Your task to perform on an android device: turn on improve location accuracy Image 0: 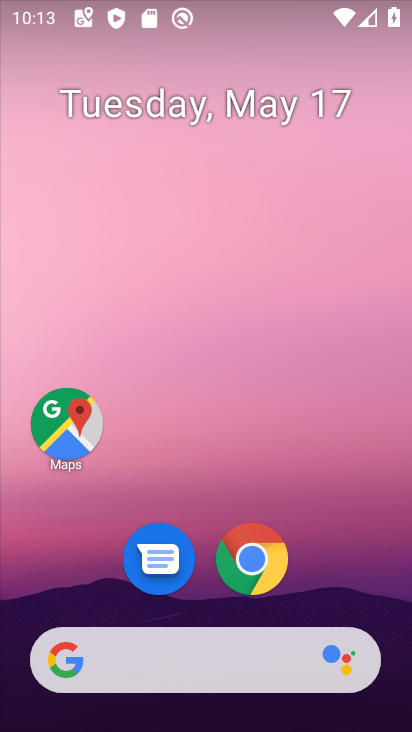
Step 0: drag from (183, 708) to (190, 102)
Your task to perform on an android device: turn on improve location accuracy Image 1: 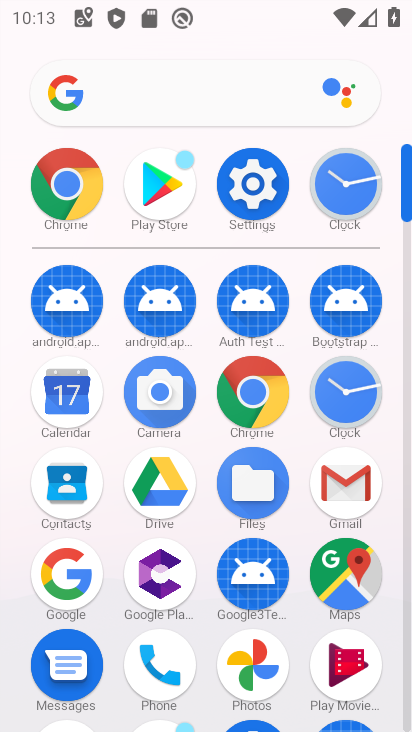
Step 1: click (262, 187)
Your task to perform on an android device: turn on improve location accuracy Image 2: 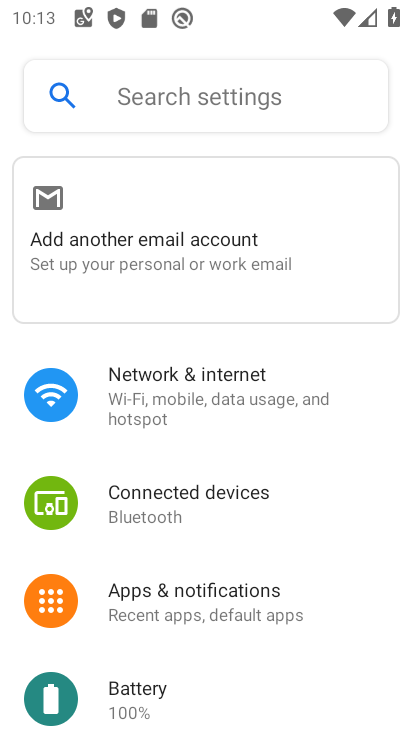
Step 2: drag from (282, 694) to (262, 114)
Your task to perform on an android device: turn on improve location accuracy Image 3: 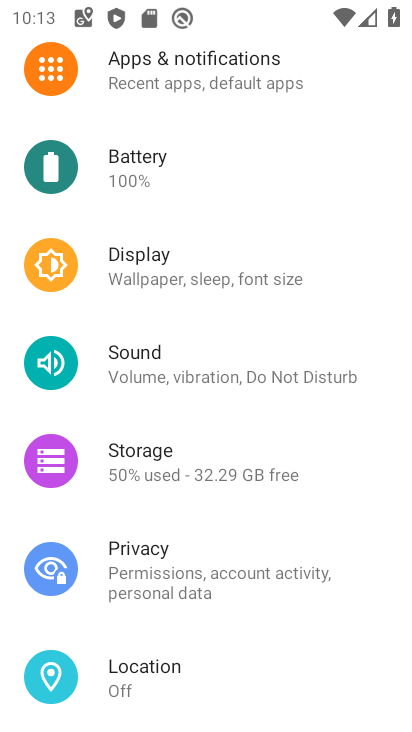
Step 3: click (199, 676)
Your task to perform on an android device: turn on improve location accuracy Image 4: 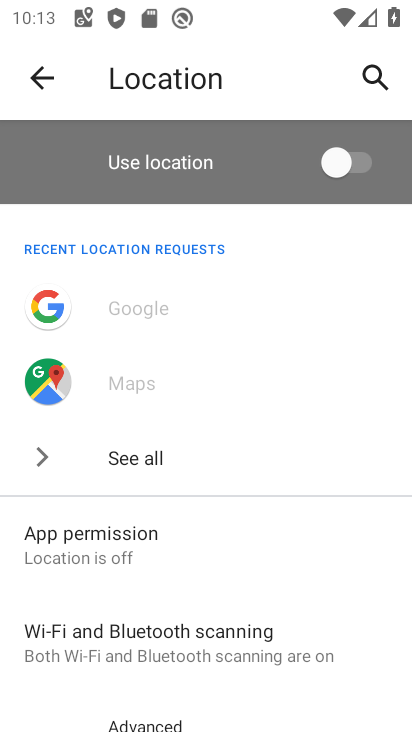
Step 4: click (221, 726)
Your task to perform on an android device: turn on improve location accuracy Image 5: 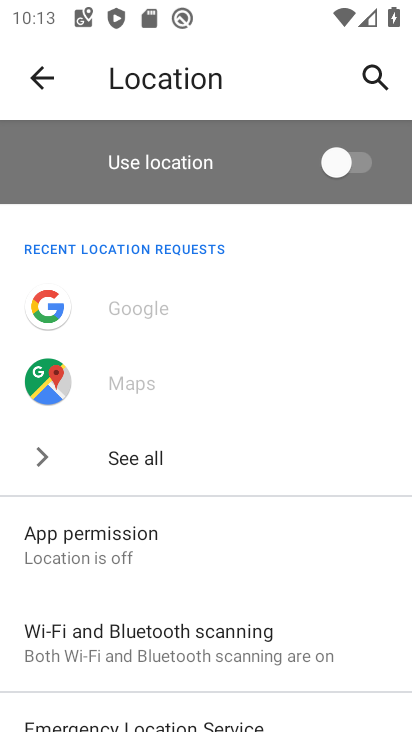
Step 5: drag from (307, 664) to (278, 98)
Your task to perform on an android device: turn on improve location accuracy Image 6: 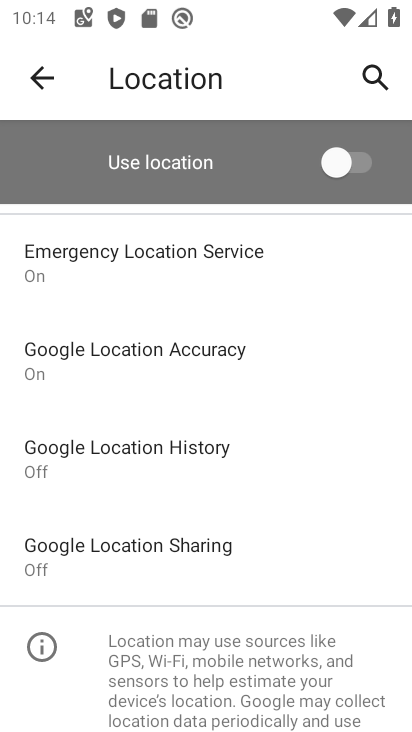
Step 6: click (191, 347)
Your task to perform on an android device: turn on improve location accuracy Image 7: 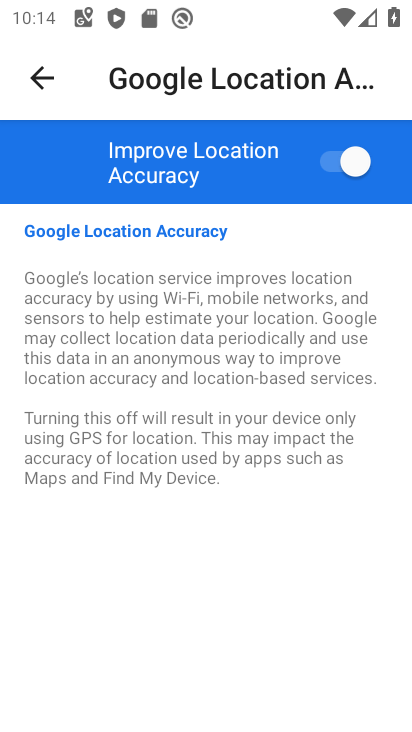
Step 7: task complete